Your task to perform on an android device: Do I have any events today? Image 0: 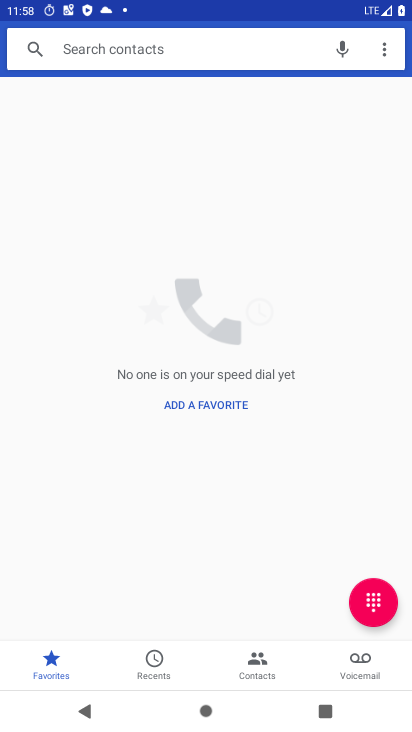
Step 0: press home button
Your task to perform on an android device: Do I have any events today? Image 1: 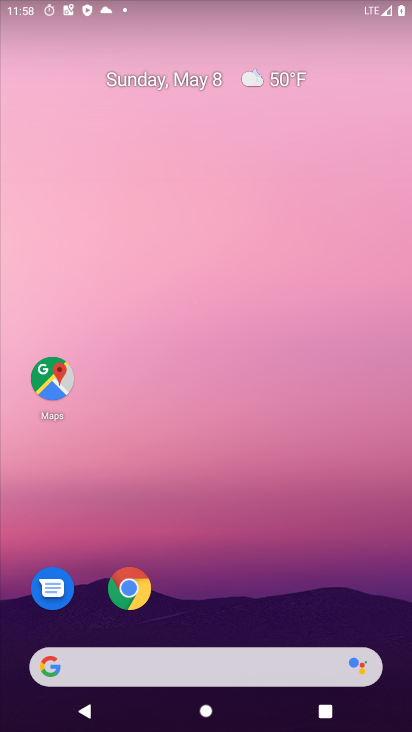
Step 1: drag from (249, 551) to (221, 38)
Your task to perform on an android device: Do I have any events today? Image 2: 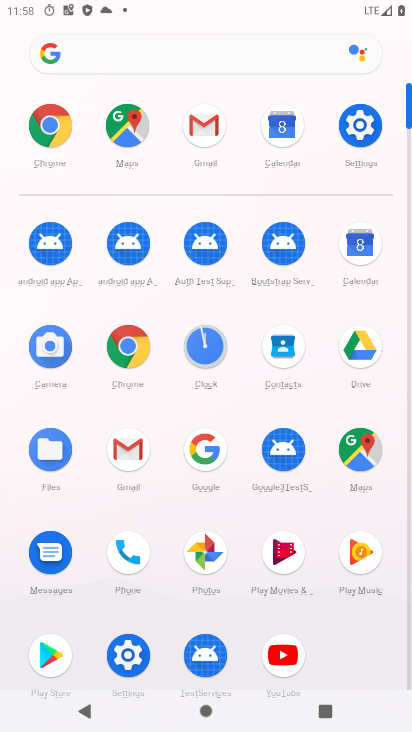
Step 2: click (364, 244)
Your task to perform on an android device: Do I have any events today? Image 3: 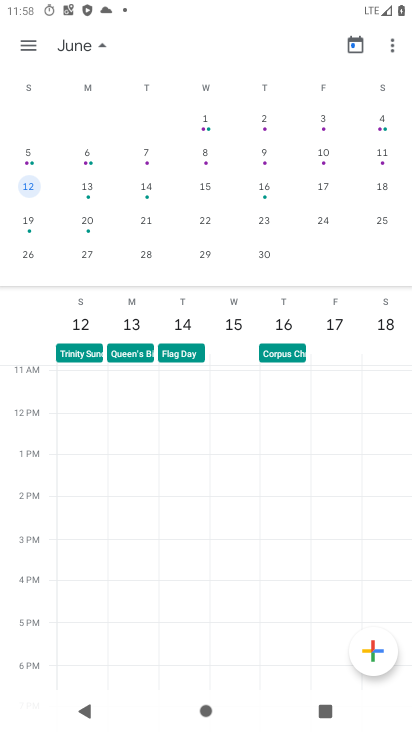
Step 3: click (32, 45)
Your task to perform on an android device: Do I have any events today? Image 4: 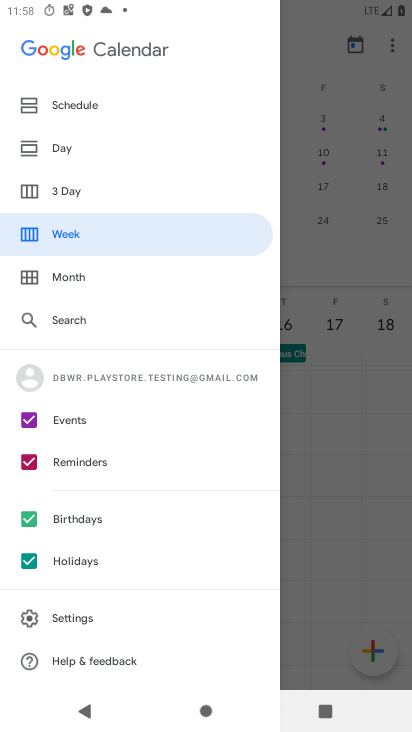
Step 4: click (66, 145)
Your task to perform on an android device: Do I have any events today? Image 5: 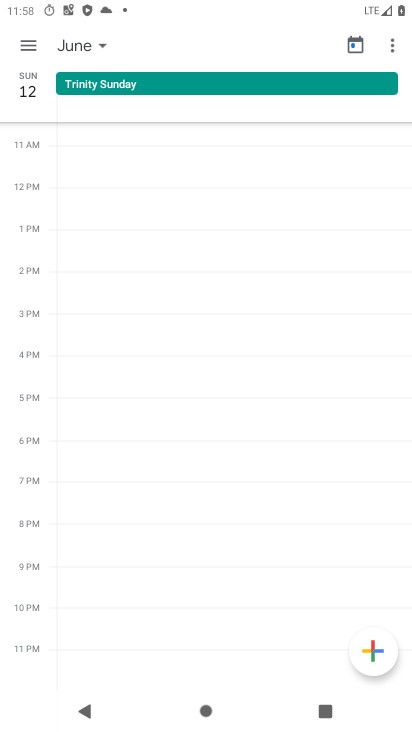
Step 5: click (89, 44)
Your task to perform on an android device: Do I have any events today? Image 6: 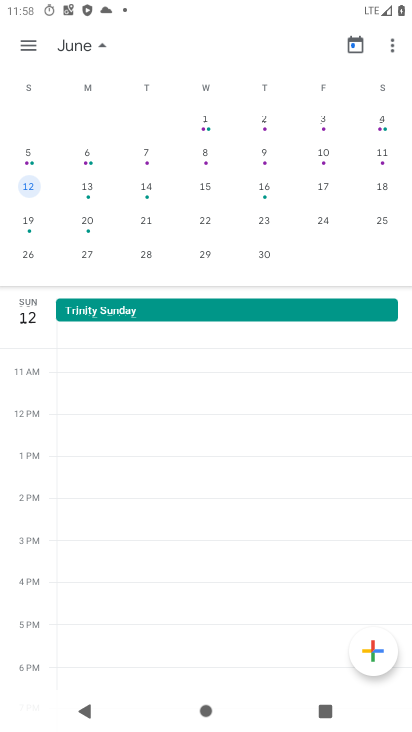
Step 6: drag from (50, 202) to (406, 241)
Your task to perform on an android device: Do I have any events today? Image 7: 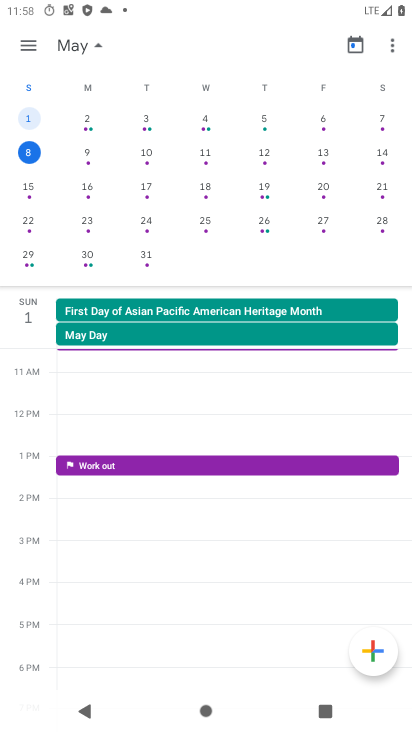
Step 7: click (31, 150)
Your task to perform on an android device: Do I have any events today? Image 8: 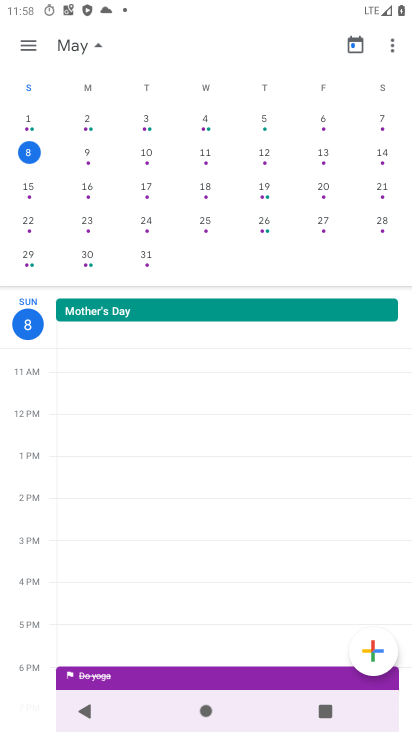
Step 8: click (165, 246)
Your task to perform on an android device: Do I have any events today? Image 9: 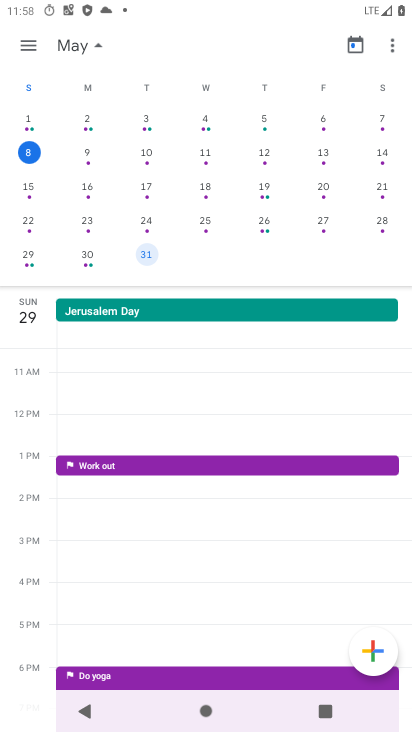
Step 9: task complete